Your task to perform on an android device: delete browsing data in the chrome app Image 0: 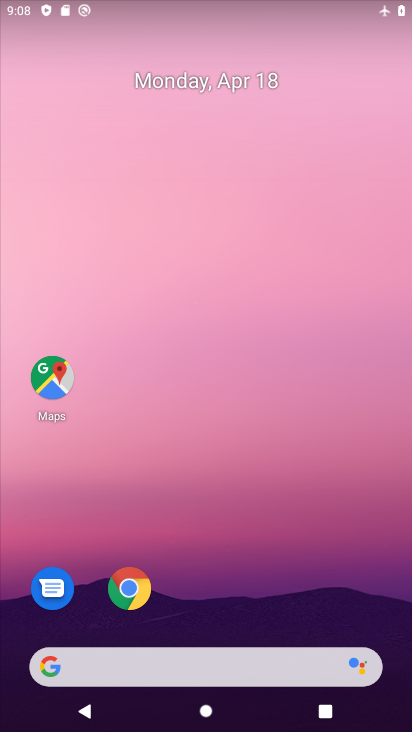
Step 0: drag from (279, 511) to (338, 134)
Your task to perform on an android device: delete browsing data in the chrome app Image 1: 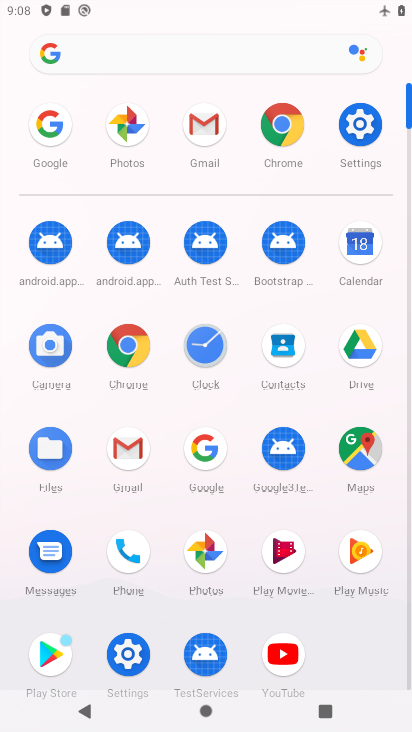
Step 1: click (121, 360)
Your task to perform on an android device: delete browsing data in the chrome app Image 2: 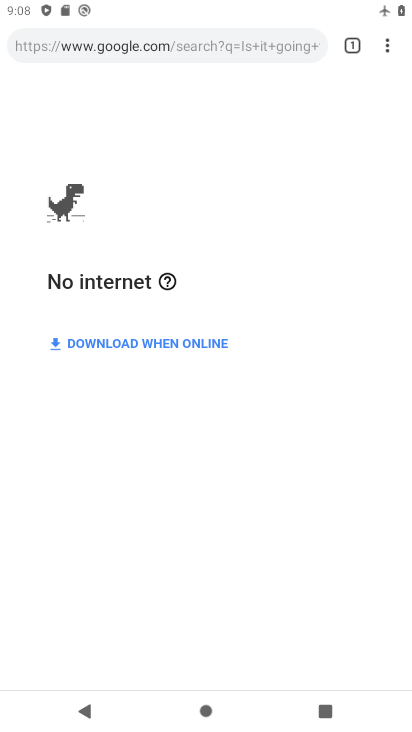
Step 2: click (384, 36)
Your task to perform on an android device: delete browsing data in the chrome app Image 3: 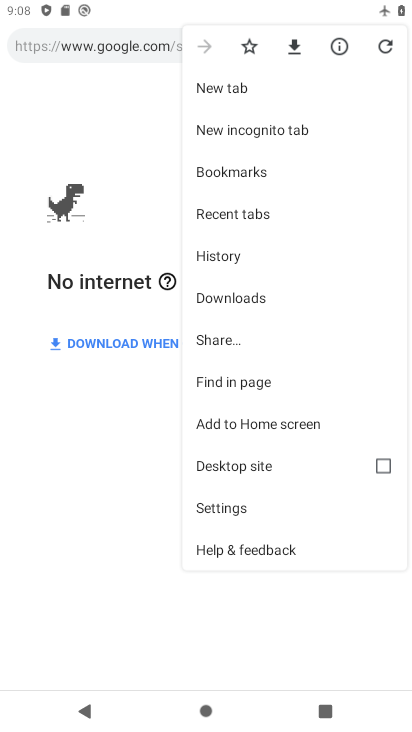
Step 3: click (237, 509)
Your task to perform on an android device: delete browsing data in the chrome app Image 4: 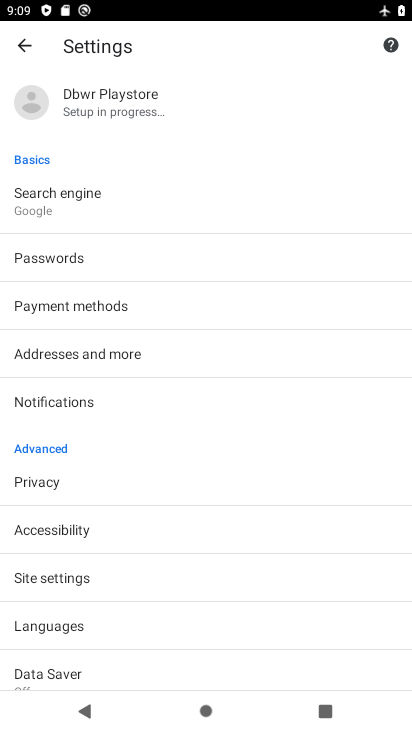
Step 4: click (107, 481)
Your task to perform on an android device: delete browsing data in the chrome app Image 5: 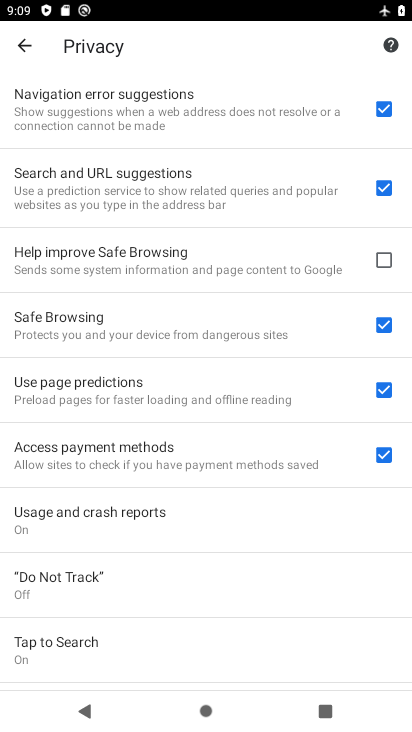
Step 5: drag from (275, 569) to (345, 112)
Your task to perform on an android device: delete browsing data in the chrome app Image 6: 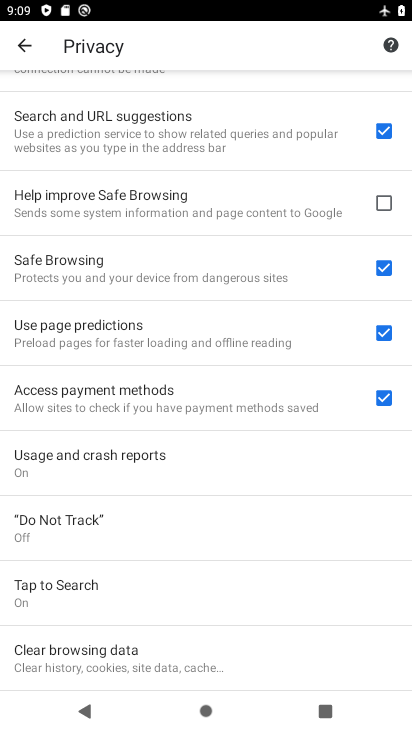
Step 6: click (213, 648)
Your task to perform on an android device: delete browsing data in the chrome app Image 7: 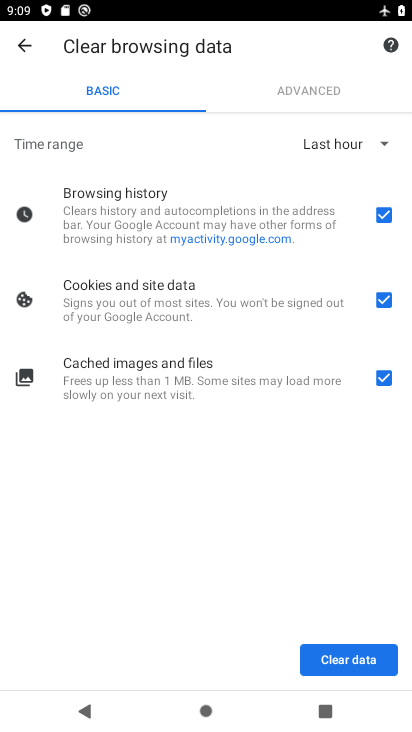
Step 7: click (377, 305)
Your task to perform on an android device: delete browsing data in the chrome app Image 8: 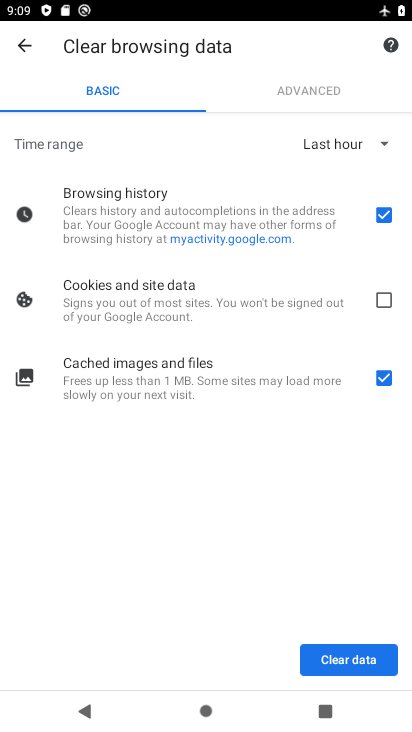
Step 8: click (355, 654)
Your task to perform on an android device: delete browsing data in the chrome app Image 9: 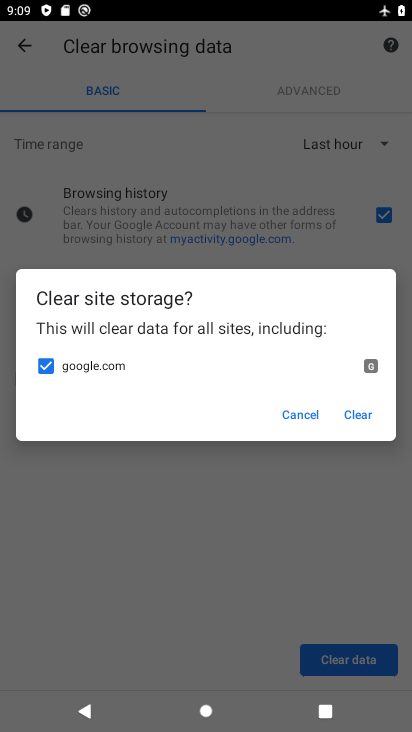
Step 9: click (354, 415)
Your task to perform on an android device: delete browsing data in the chrome app Image 10: 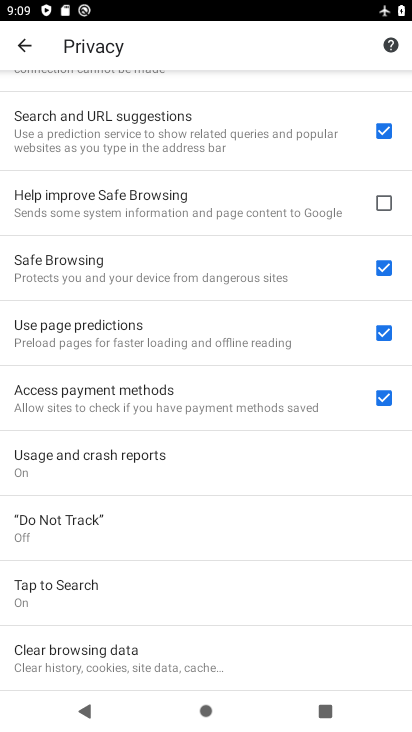
Step 10: task complete